Your task to perform on an android device: open app "Venmo" (install if not already installed) Image 0: 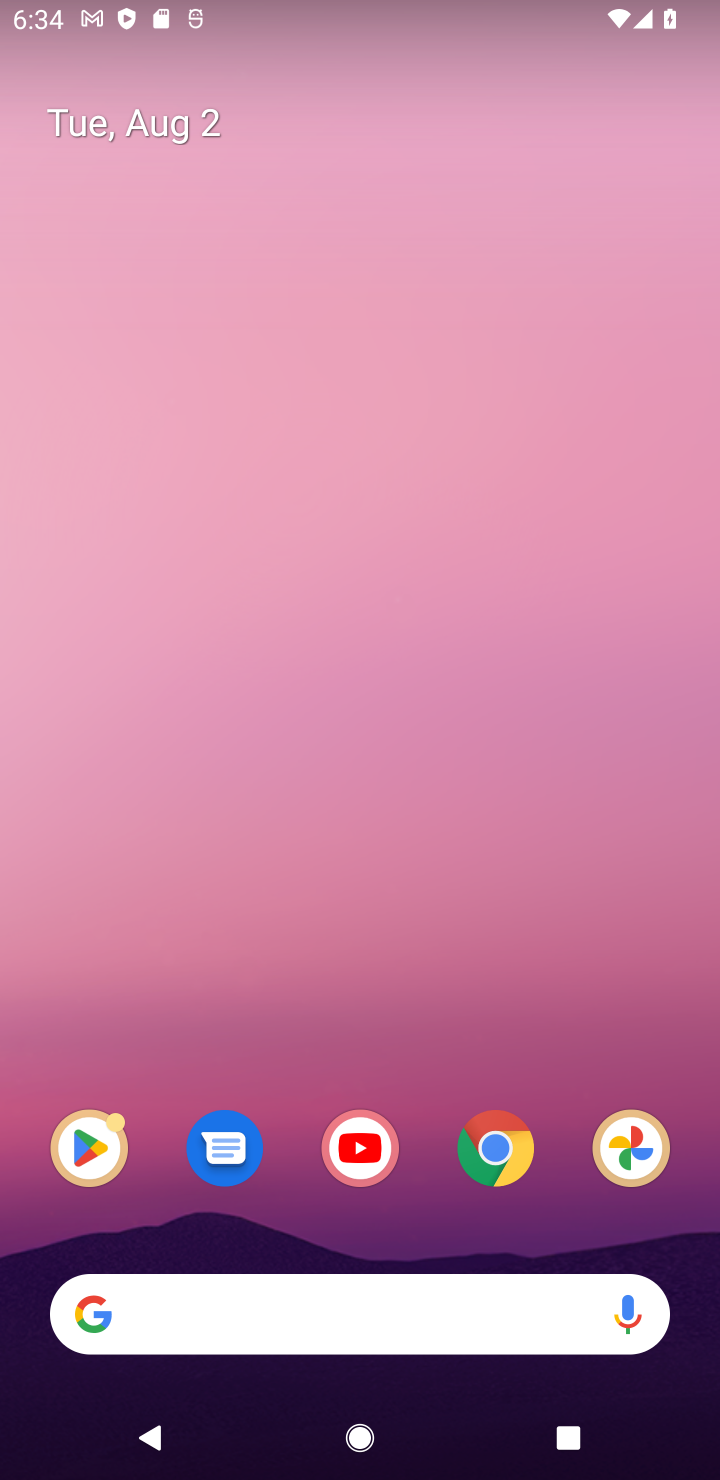
Step 0: drag from (497, 956) to (181, 122)
Your task to perform on an android device: open app "Venmo" (install if not already installed) Image 1: 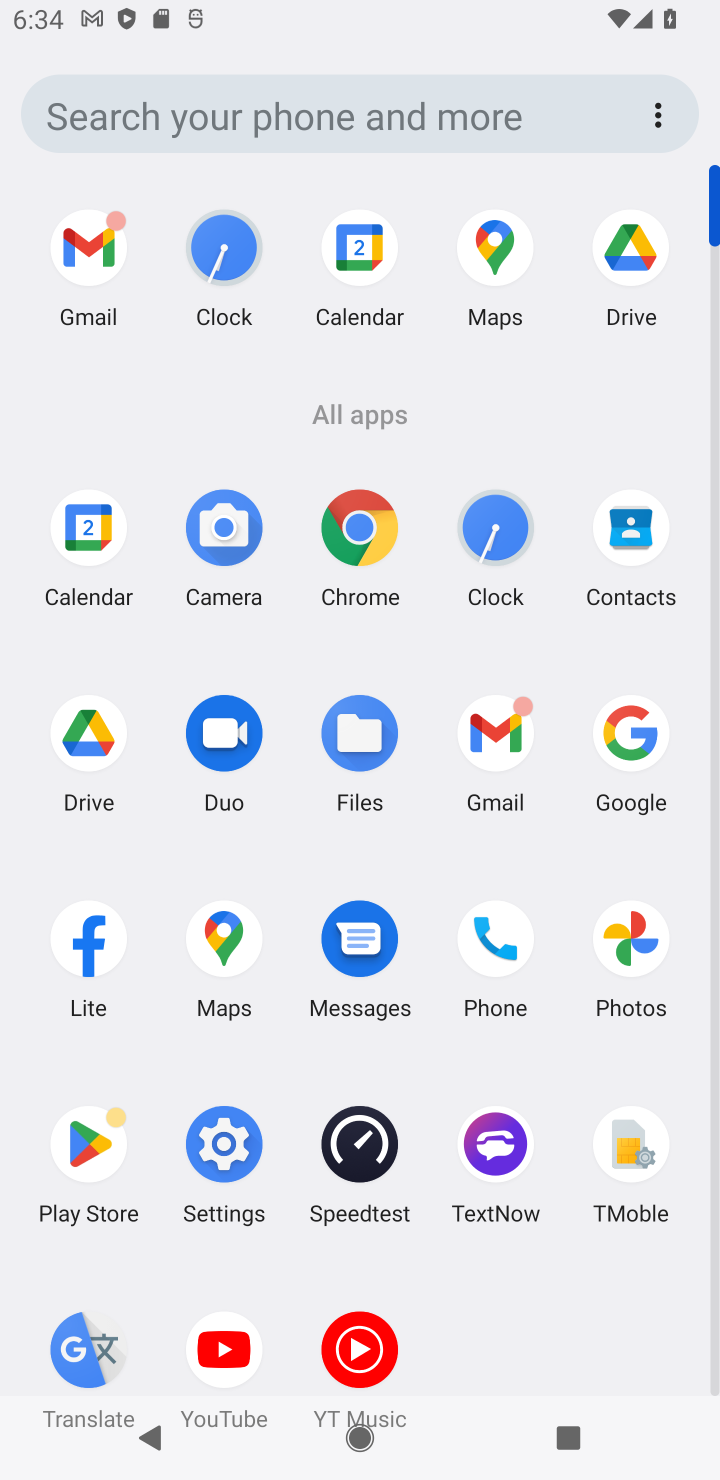
Step 1: click (82, 1147)
Your task to perform on an android device: open app "Venmo" (install if not already installed) Image 2: 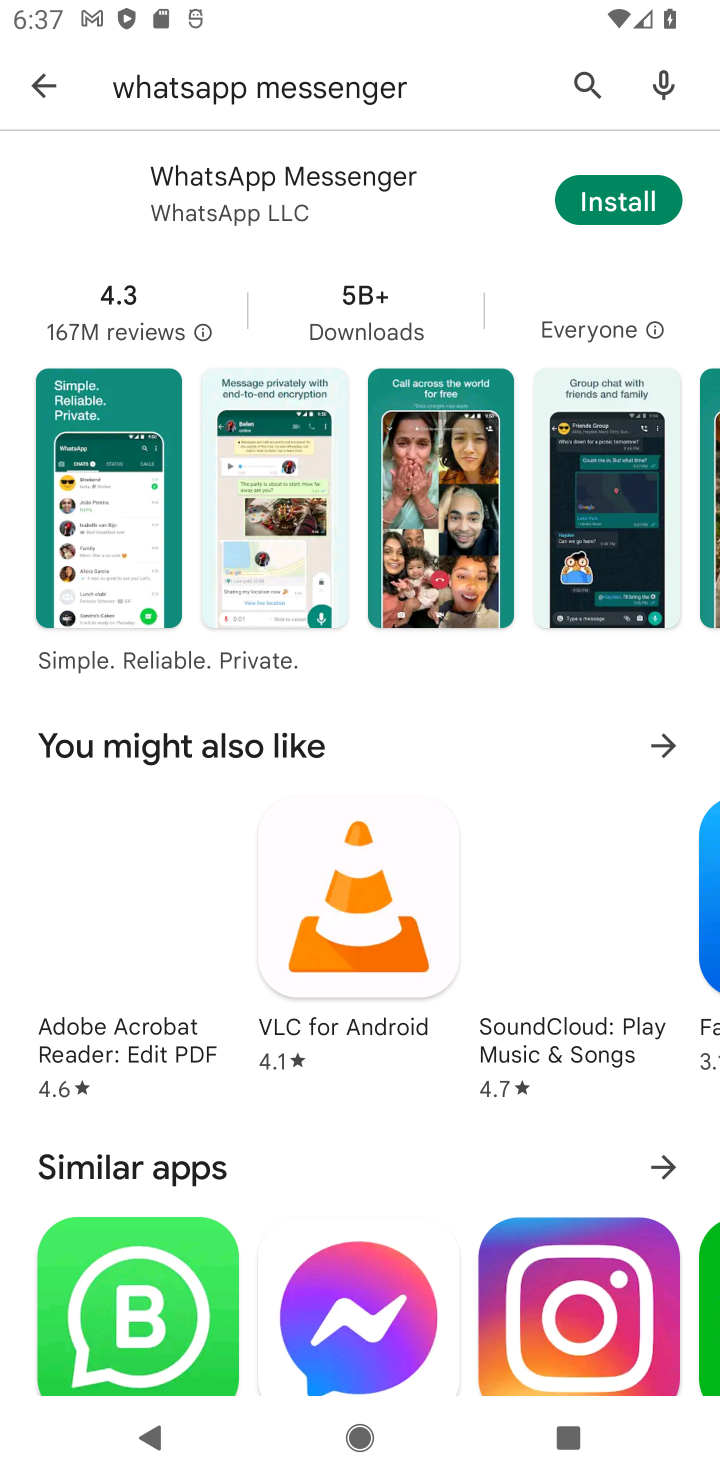
Step 2: press back button
Your task to perform on an android device: open app "Venmo" (install if not already installed) Image 3: 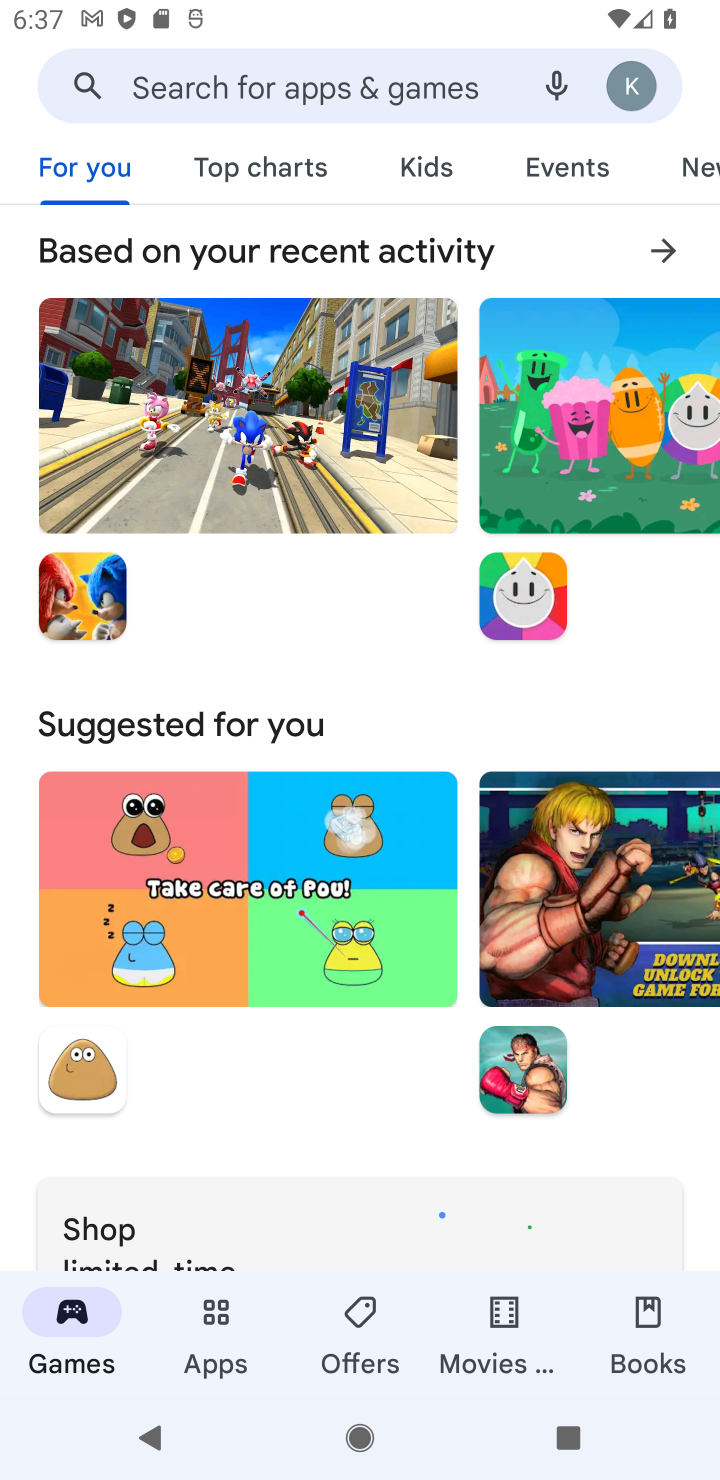
Step 3: click (185, 93)
Your task to perform on an android device: open app "Venmo" (install if not already installed) Image 4: 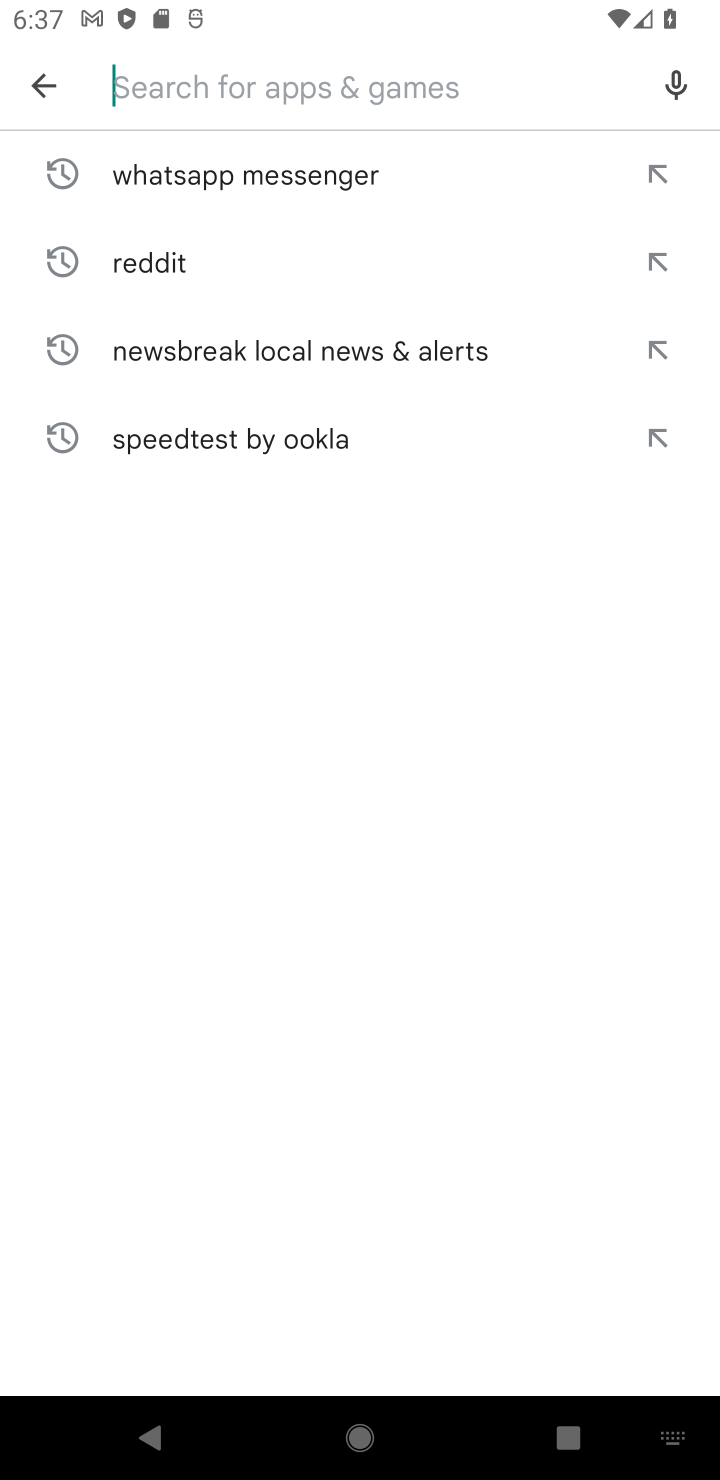
Step 4: type "Venmo"
Your task to perform on an android device: open app "Venmo" (install if not already installed) Image 5: 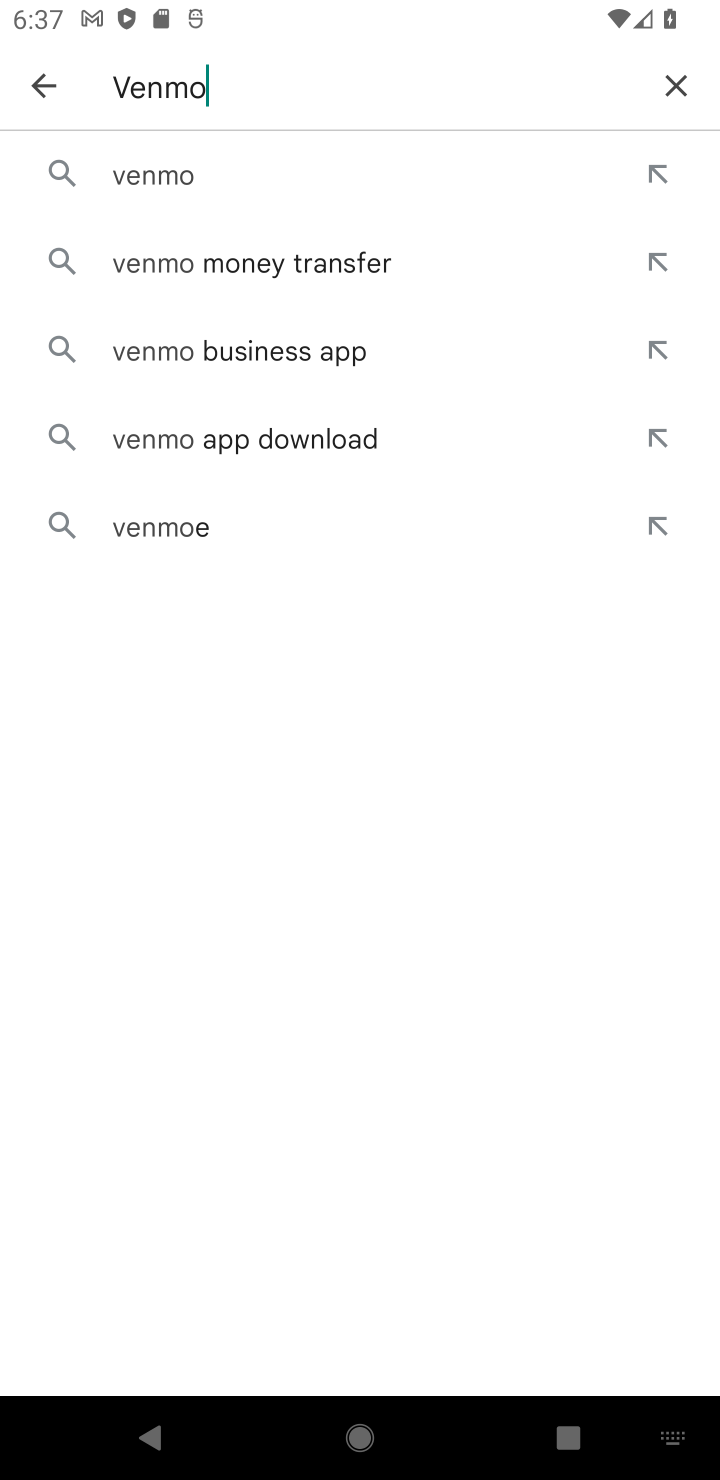
Step 5: click (234, 168)
Your task to perform on an android device: open app "Venmo" (install if not already installed) Image 6: 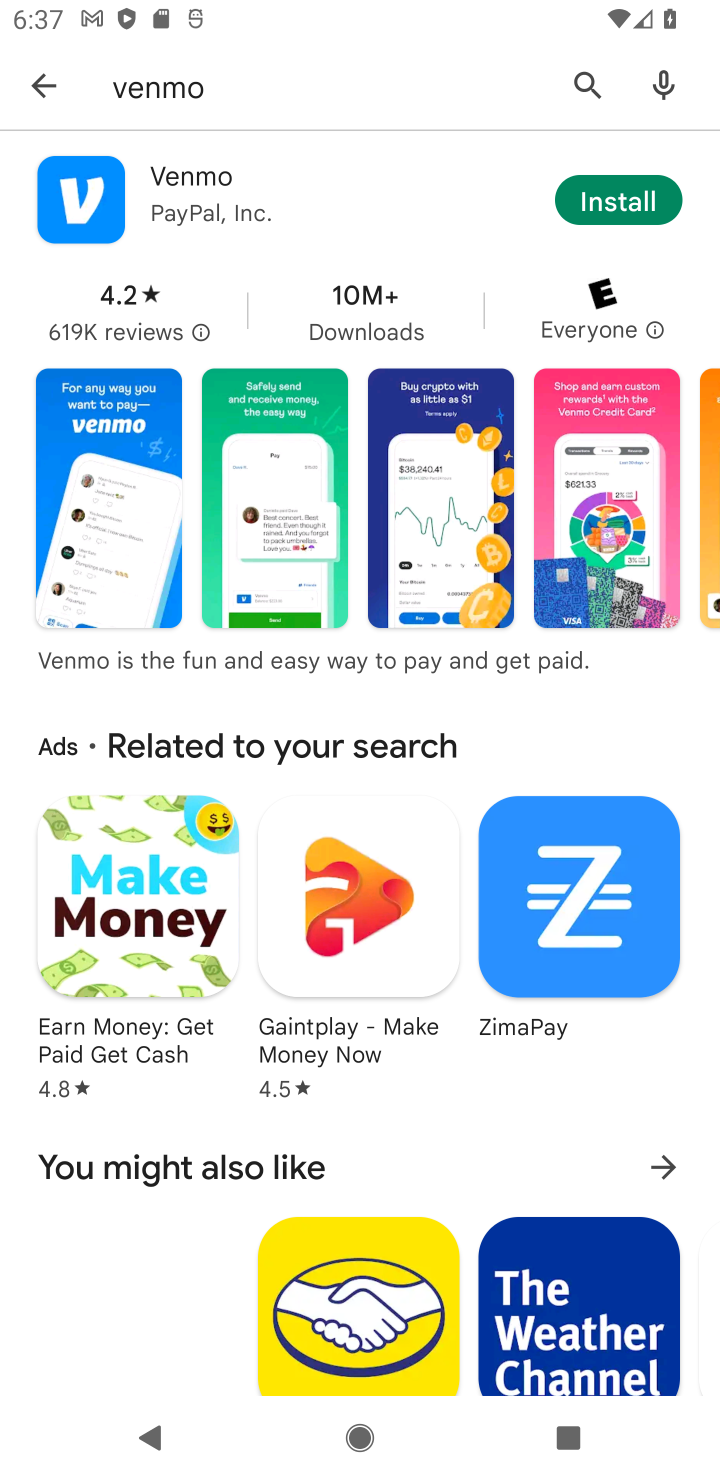
Step 6: task complete